Your task to perform on an android device: turn on the 12-hour format for clock Image 0: 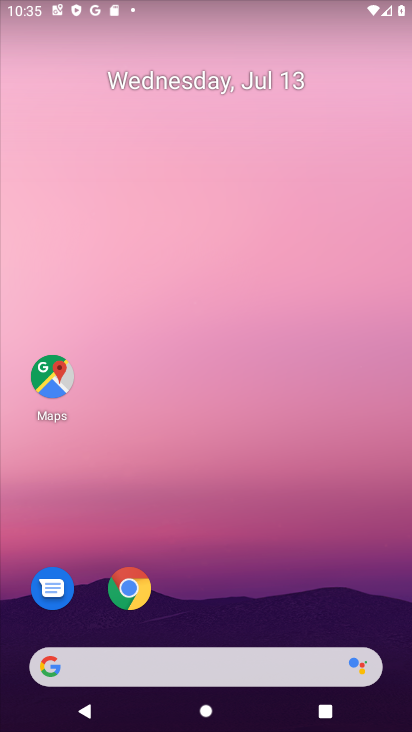
Step 0: drag from (211, 588) to (221, 37)
Your task to perform on an android device: turn on the 12-hour format for clock Image 1: 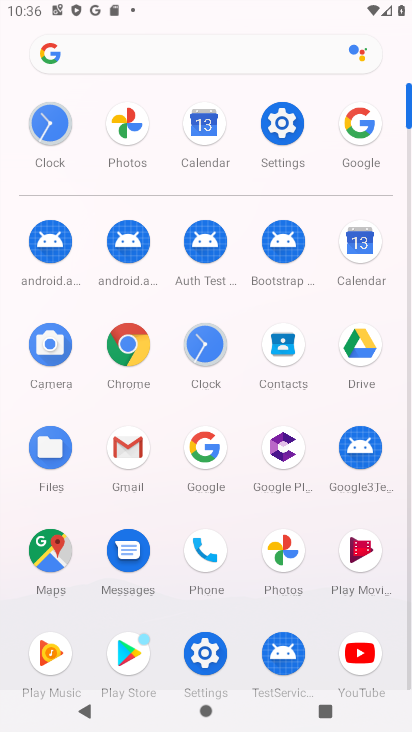
Step 1: click (205, 349)
Your task to perform on an android device: turn on the 12-hour format for clock Image 2: 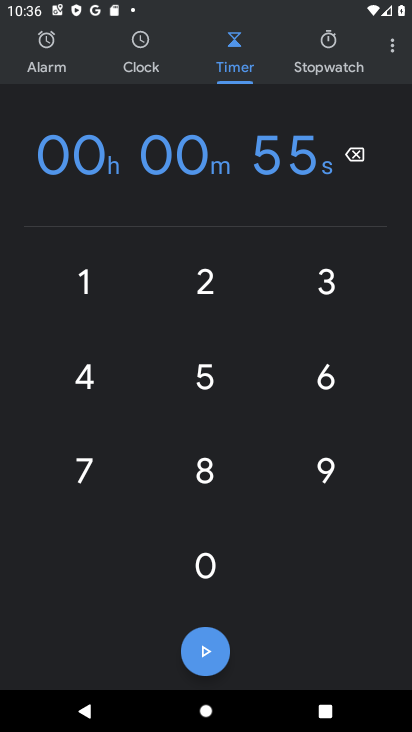
Step 2: click (386, 46)
Your task to perform on an android device: turn on the 12-hour format for clock Image 3: 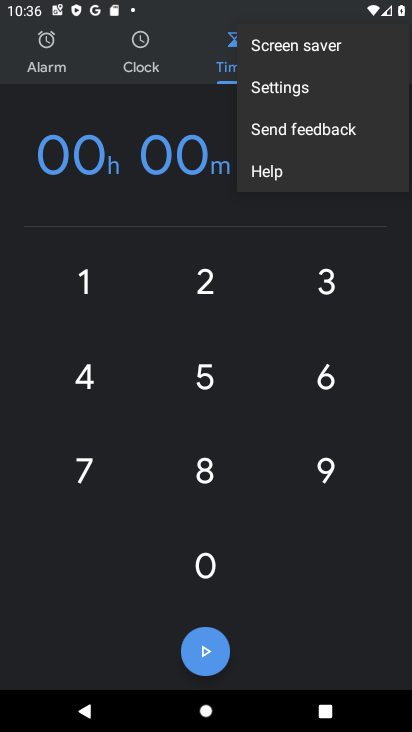
Step 3: click (269, 86)
Your task to perform on an android device: turn on the 12-hour format for clock Image 4: 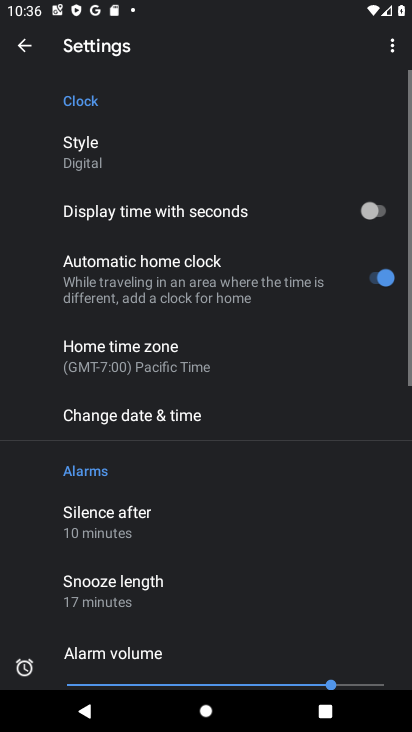
Step 4: click (149, 420)
Your task to perform on an android device: turn on the 12-hour format for clock Image 5: 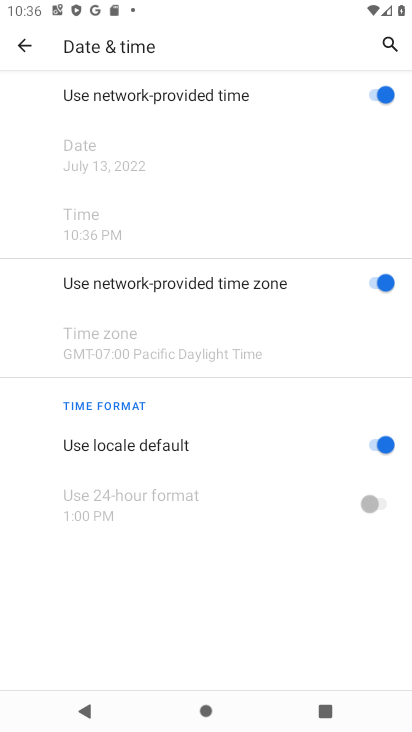
Step 5: task complete